Your task to perform on an android device: Go to location settings Image 0: 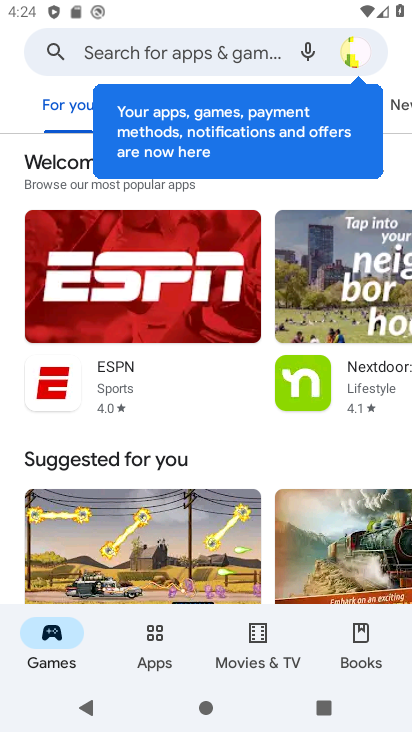
Step 0: press home button
Your task to perform on an android device: Go to location settings Image 1: 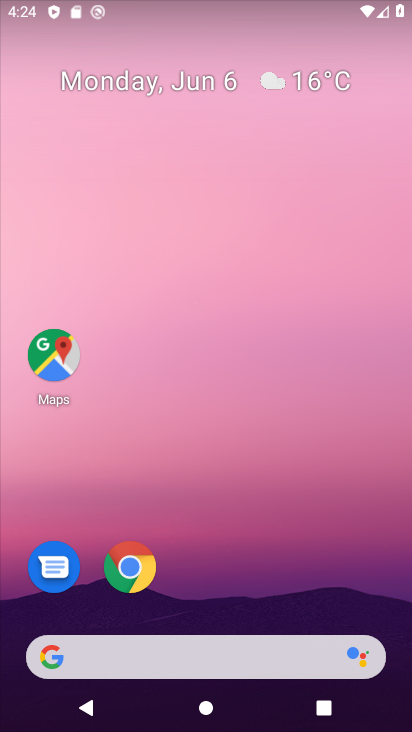
Step 1: drag from (258, 570) to (324, 270)
Your task to perform on an android device: Go to location settings Image 2: 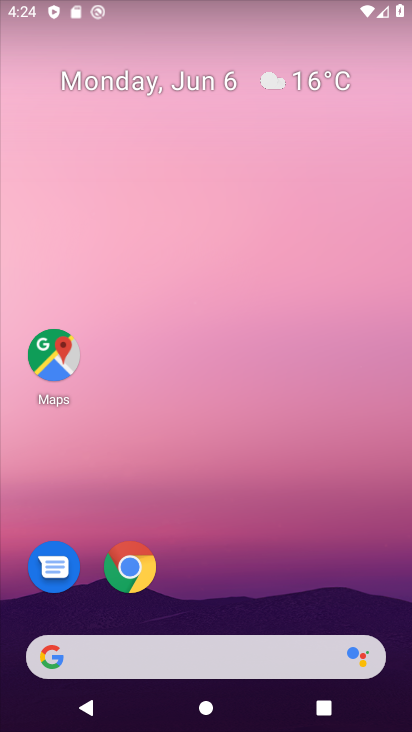
Step 2: drag from (216, 612) to (357, 201)
Your task to perform on an android device: Go to location settings Image 3: 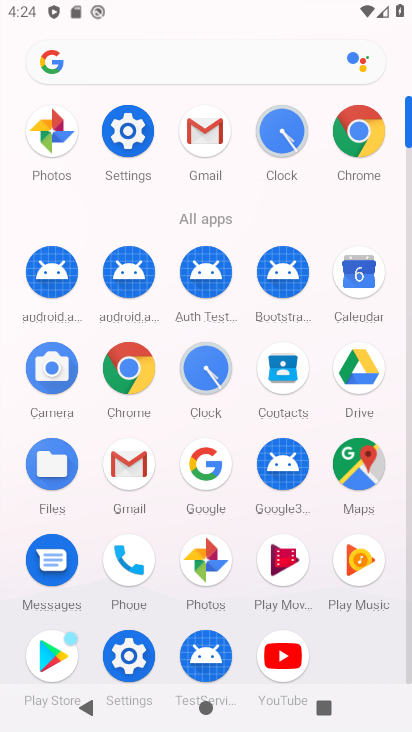
Step 3: drag from (174, 557) to (270, 389)
Your task to perform on an android device: Go to location settings Image 4: 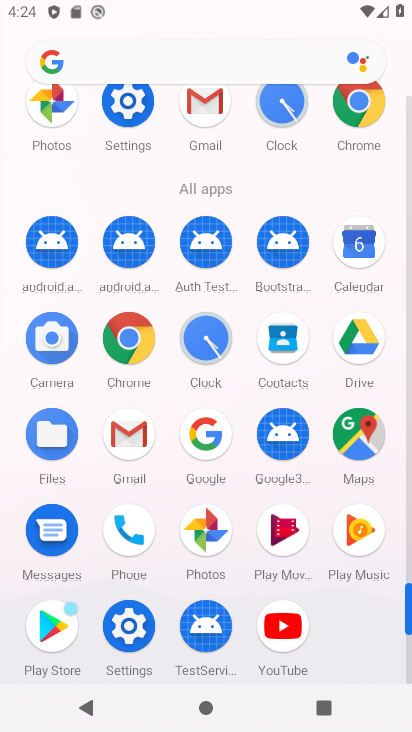
Step 4: click (117, 640)
Your task to perform on an android device: Go to location settings Image 5: 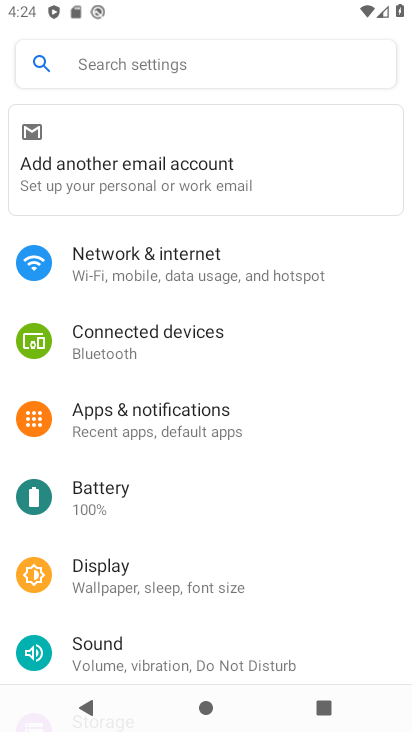
Step 5: drag from (234, 559) to (311, 340)
Your task to perform on an android device: Go to location settings Image 6: 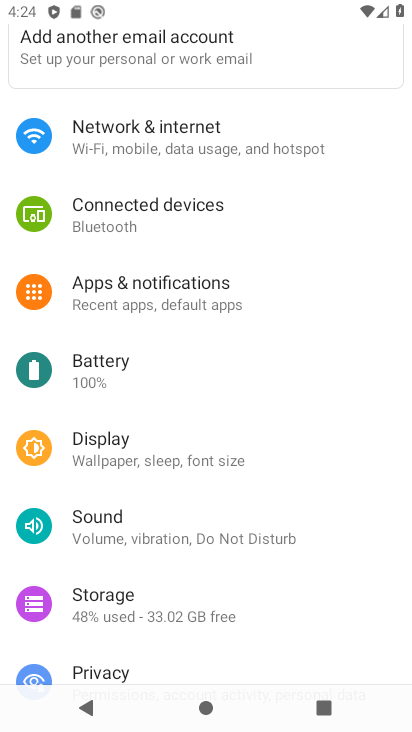
Step 6: drag from (198, 599) to (326, 288)
Your task to perform on an android device: Go to location settings Image 7: 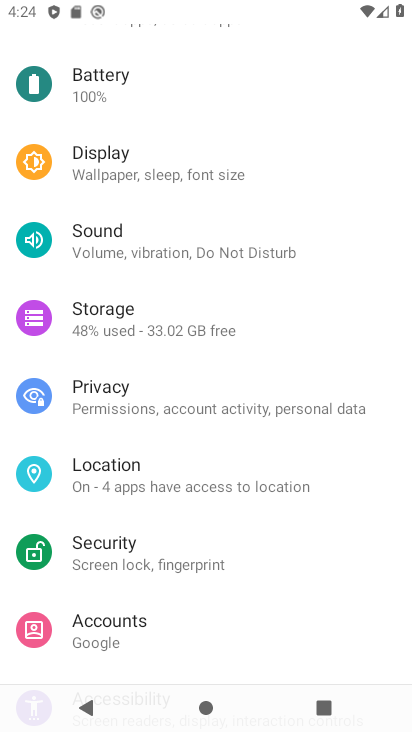
Step 7: click (192, 455)
Your task to perform on an android device: Go to location settings Image 8: 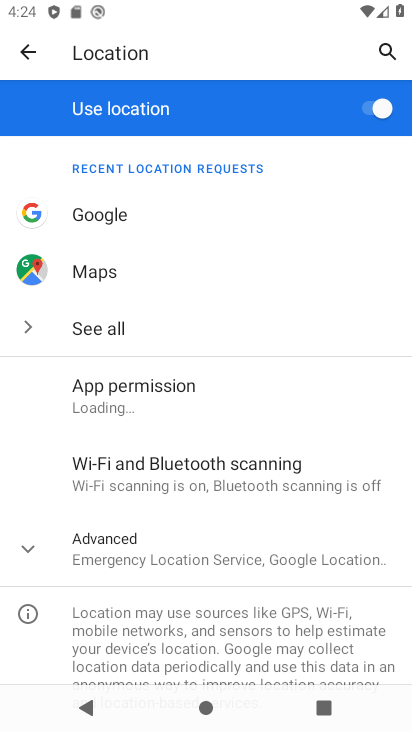
Step 8: task complete